Your task to perform on an android device: turn on javascript in the chrome app Image 0: 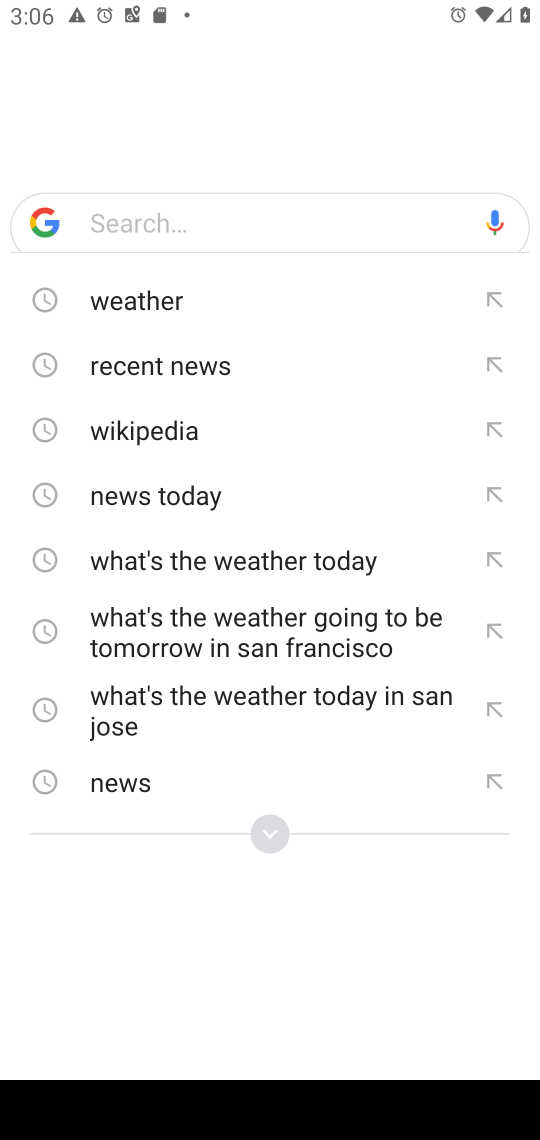
Step 0: press home button
Your task to perform on an android device: turn on javascript in the chrome app Image 1: 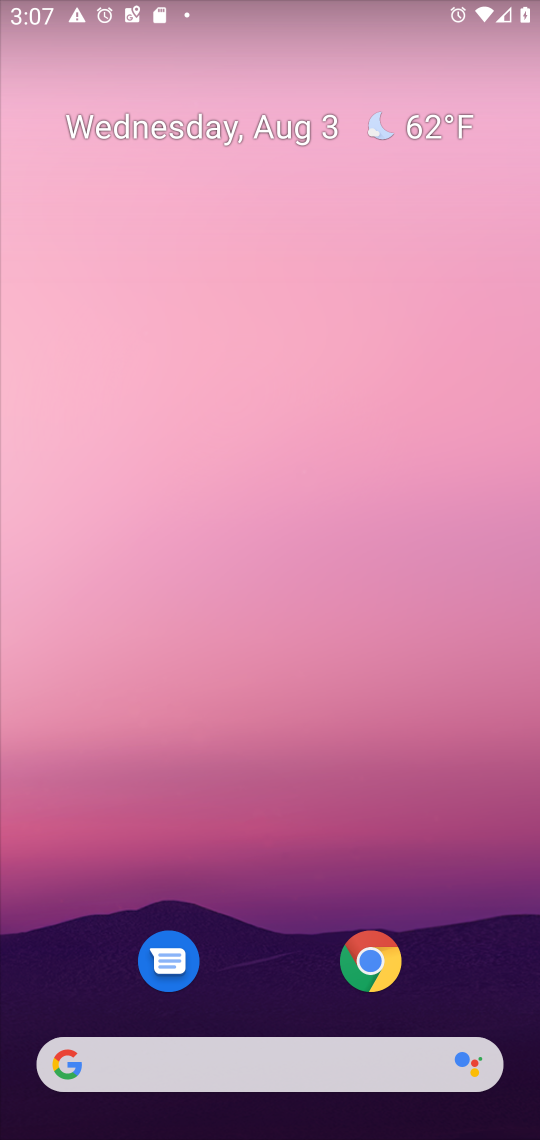
Step 1: click (371, 967)
Your task to perform on an android device: turn on javascript in the chrome app Image 2: 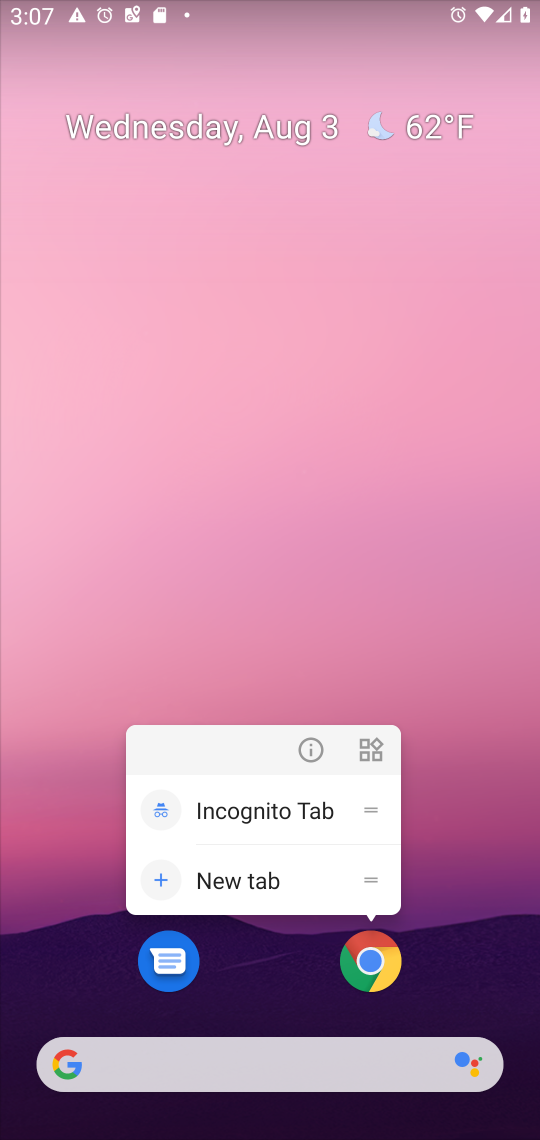
Step 2: click (371, 967)
Your task to perform on an android device: turn on javascript in the chrome app Image 3: 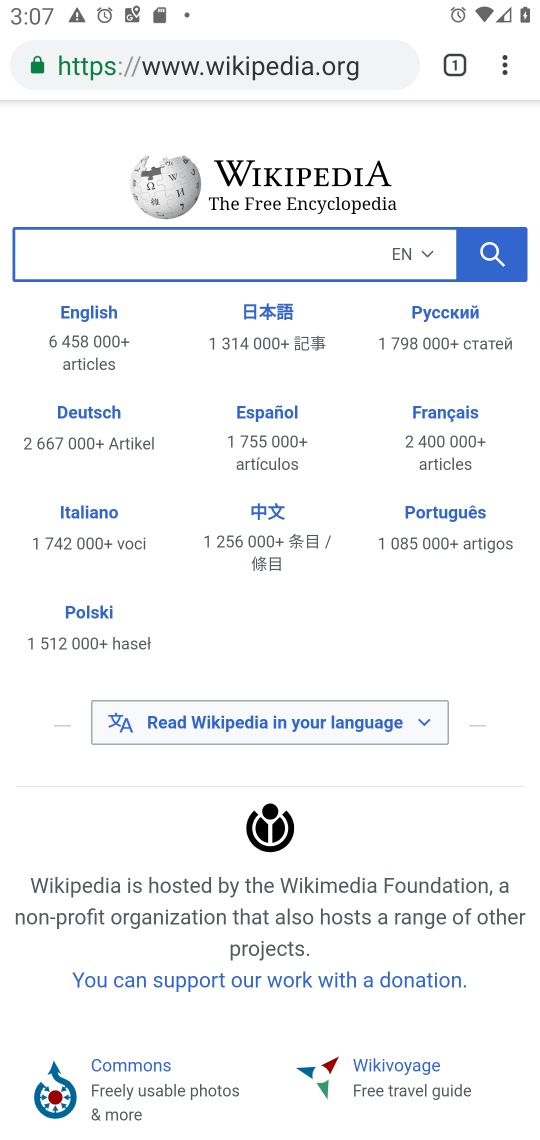
Step 3: click (510, 66)
Your task to perform on an android device: turn on javascript in the chrome app Image 4: 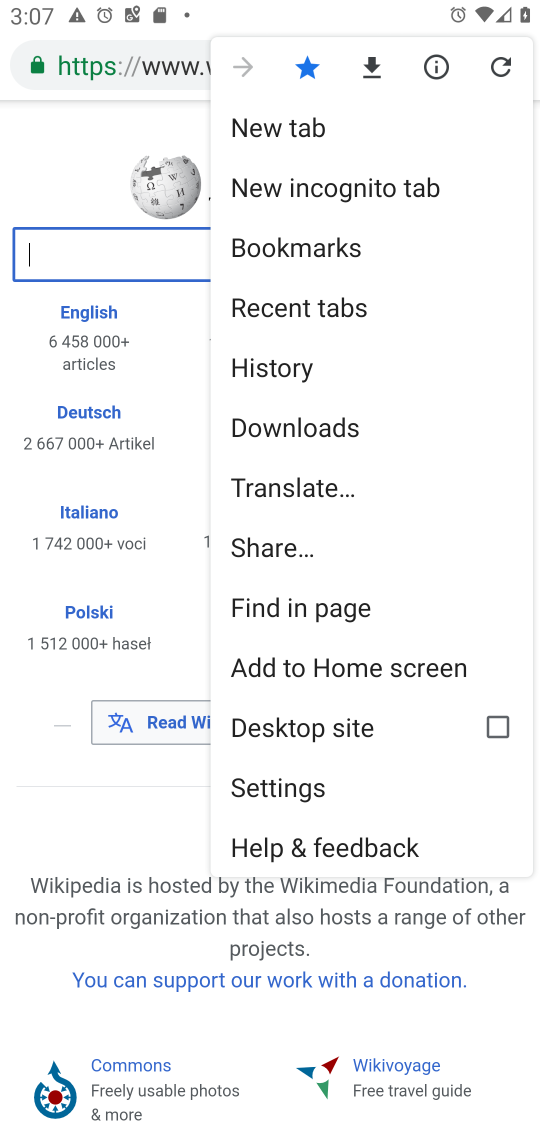
Step 4: click (283, 784)
Your task to perform on an android device: turn on javascript in the chrome app Image 5: 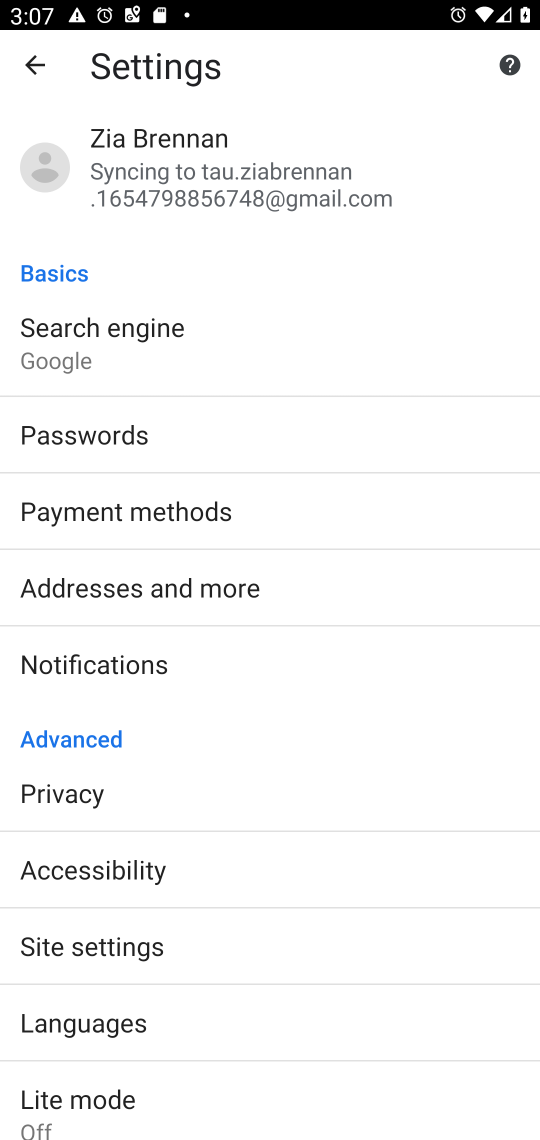
Step 5: click (104, 956)
Your task to perform on an android device: turn on javascript in the chrome app Image 6: 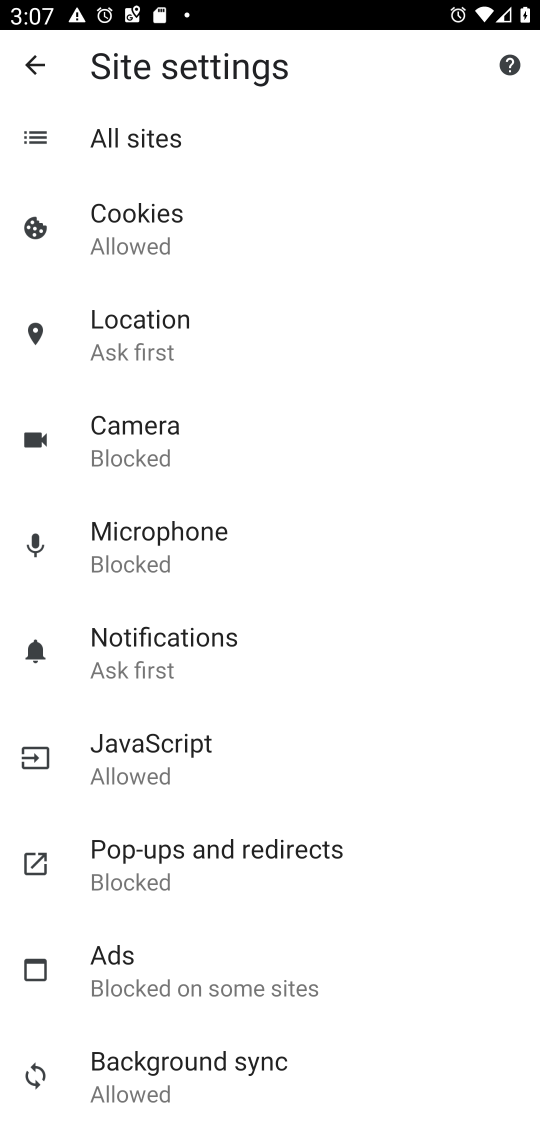
Step 6: click (155, 747)
Your task to perform on an android device: turn on javascript in the chrome app Image 7: 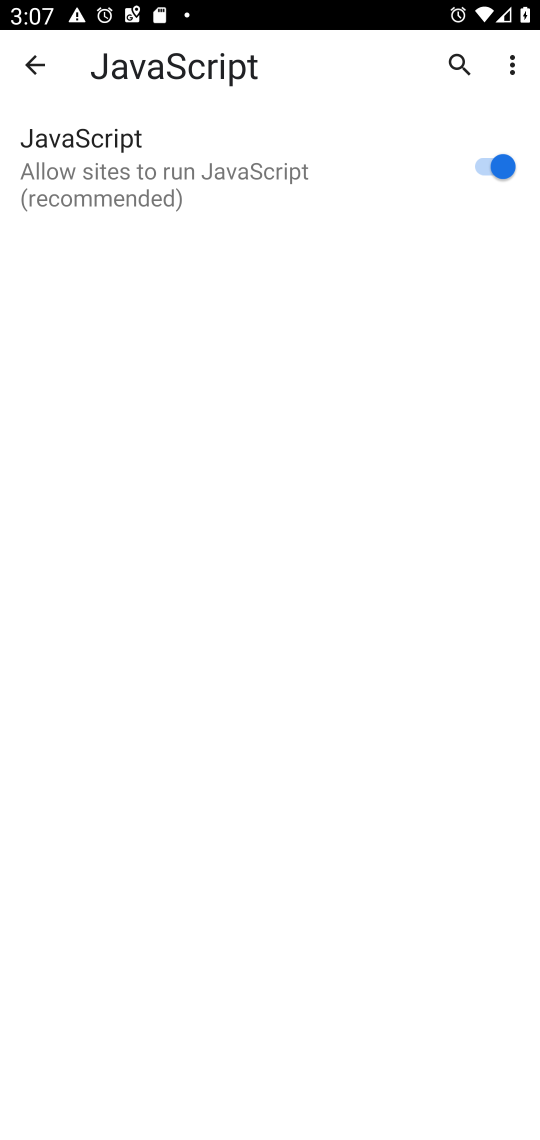
Step 7: task complete